Your task to perform on an android device: Go to Maps Image 0: 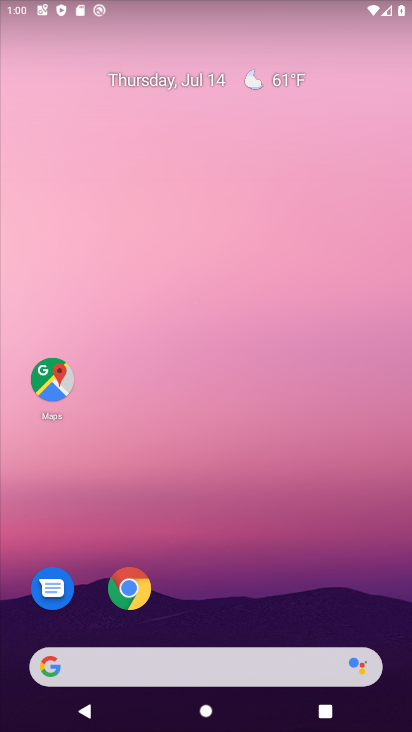
Step 0: click (54, 381)
Your task to perform on an android device: Go to Maps Image 1: 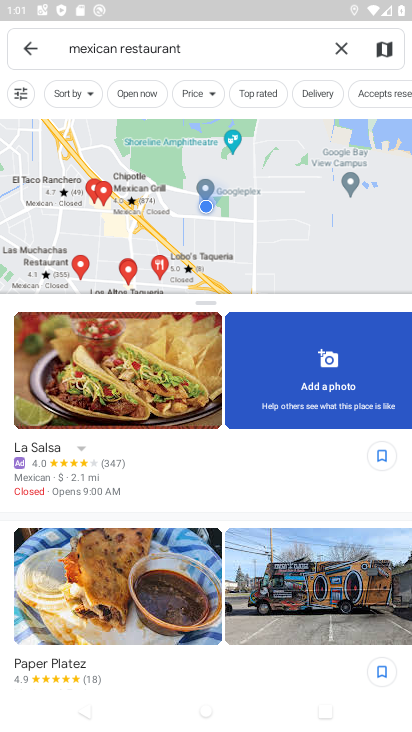
Step 1: task complete